Your task to perform on an android device: delete location history Image 0: 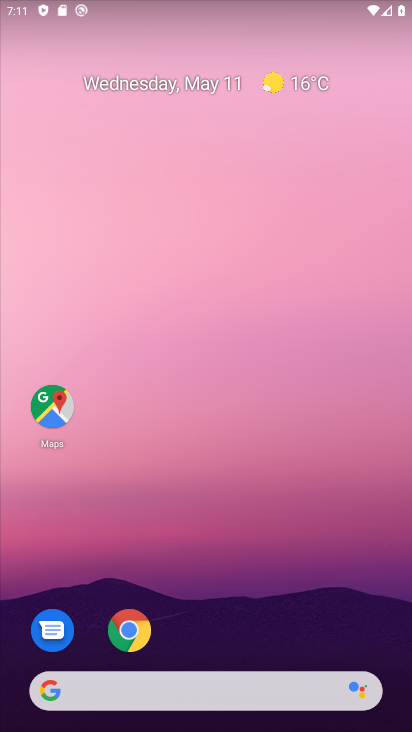
Step 0: drag from (296, 601) to (313, 23)
Your task to perform on an android device: delete location history Image 1: 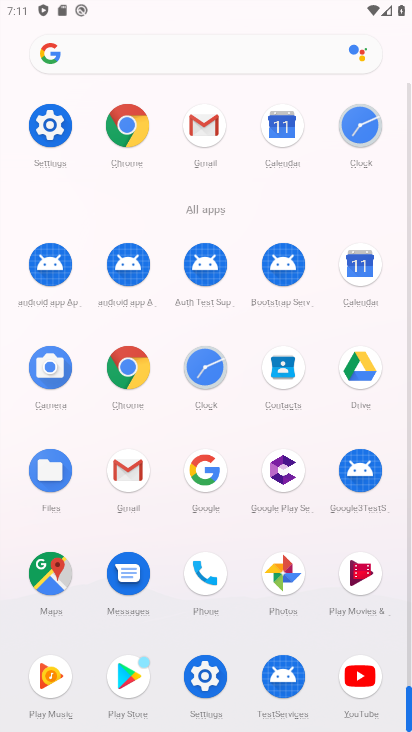
Step 1: click (63, 138)
Your task to perform on an android device: delete location history Image 2: 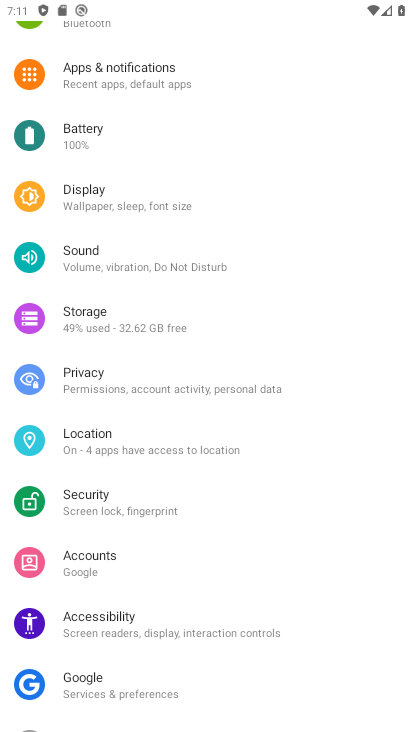
Step 2: press back button
Your task to perform on an android device: delete location history Image 3: 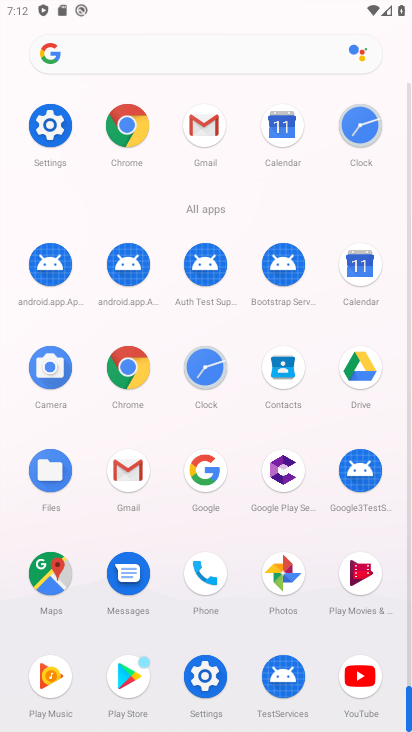
Step 3: click (47, 575)
Your task to perform on an android device: delete location history Image 4: 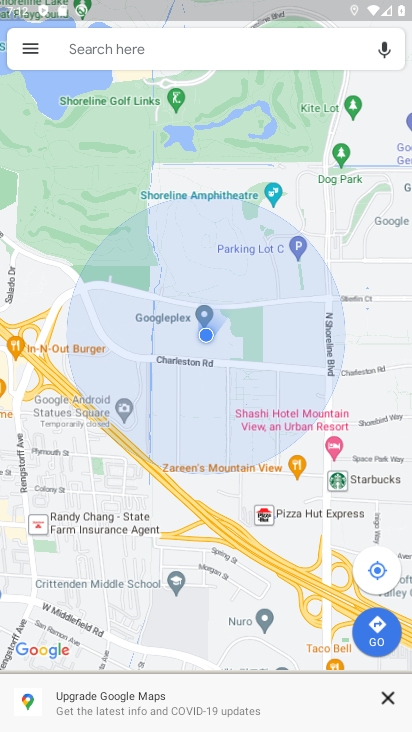
Step 4: click (18, 48)
Your task to perform on an android device: delete location history Image 5: 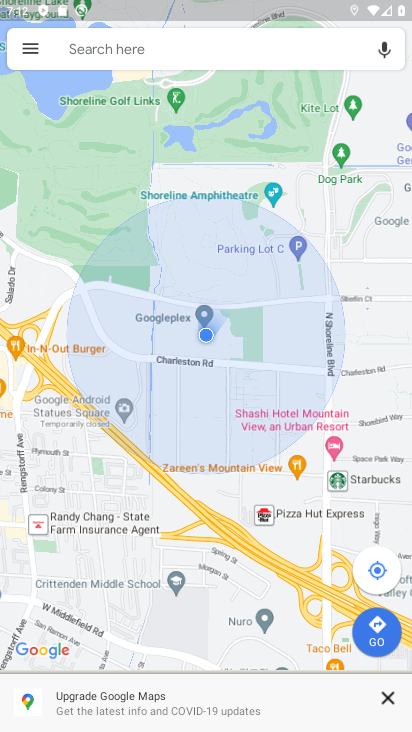
Step 5: click (18, 48)
Your task to perform on an android device: delete location history Image 6: 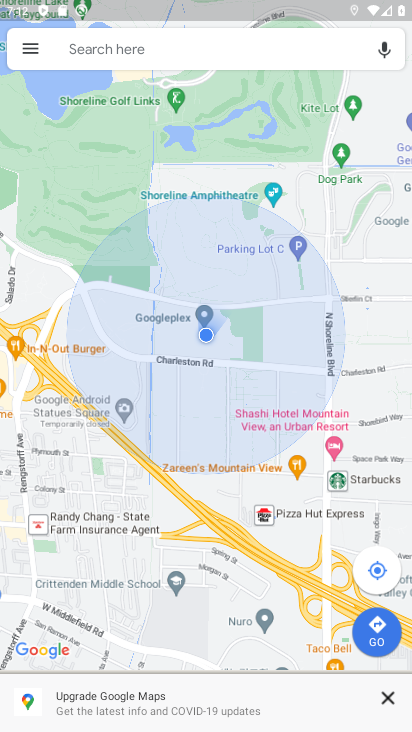
Step 6: click (18, 49)
Your task to perform on an android device: delete location history Image 7: 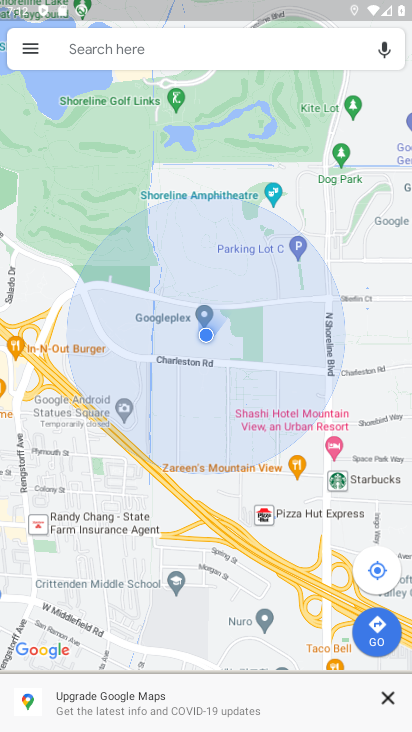
Step 7: click (22, 54)
Your task to perform on an android device: delete location history Image 8: 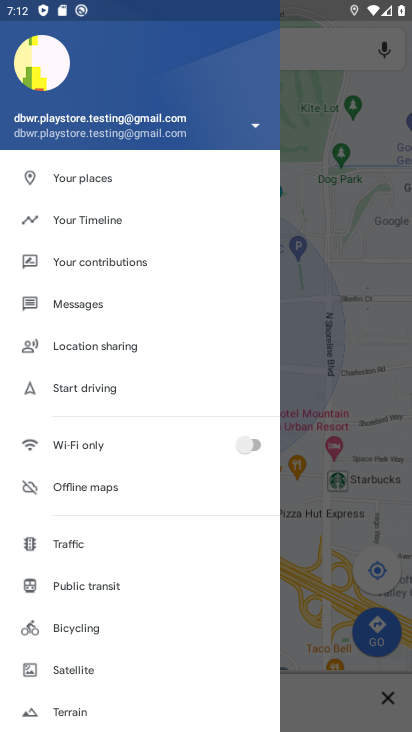
Step 8: click (67, 221)
Your task to perform on an android device: delete location history Image 9: 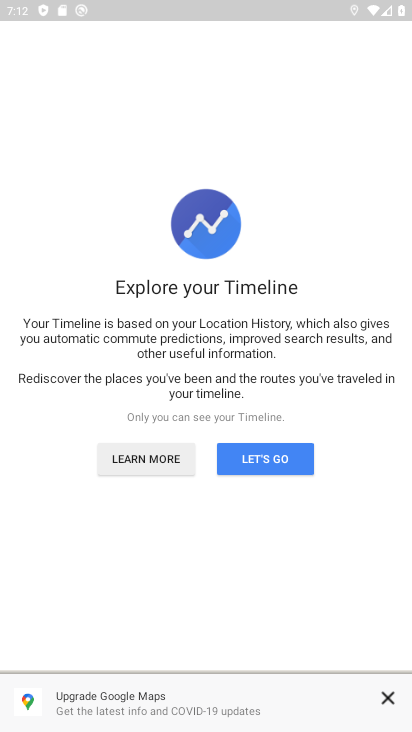
Step 9: click (261, 468)
Your task to perform on an android device: delete location history Image 10: 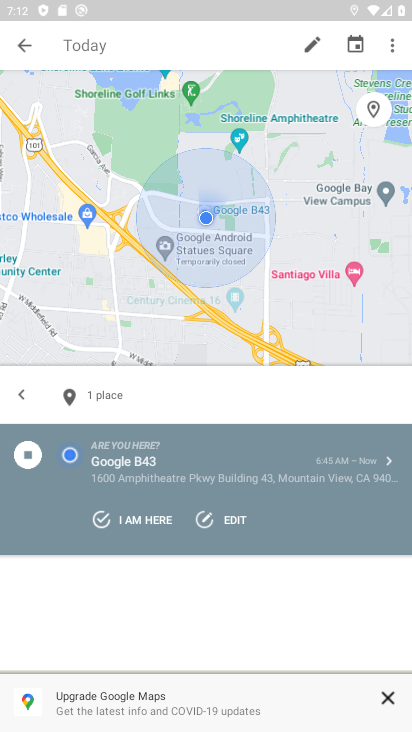
Step 10: click (393, 45)
Your task to perform on an android device: delete location history Image 11: 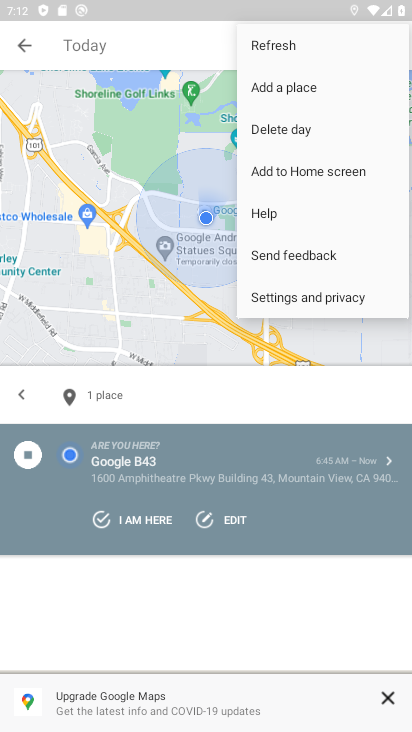
Step 11: click (284, 294)
Your task to perform on an android device: delete location history Image 12: 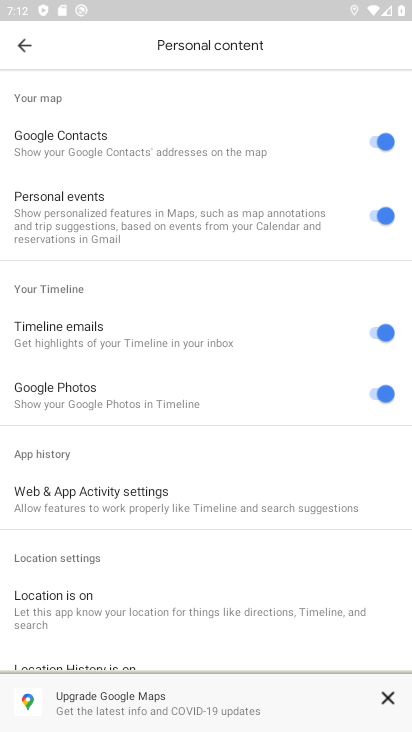
Step 12: drag from (162, 577) to (237, 110)
Your task to perform on an android device: delete location history Image 13: 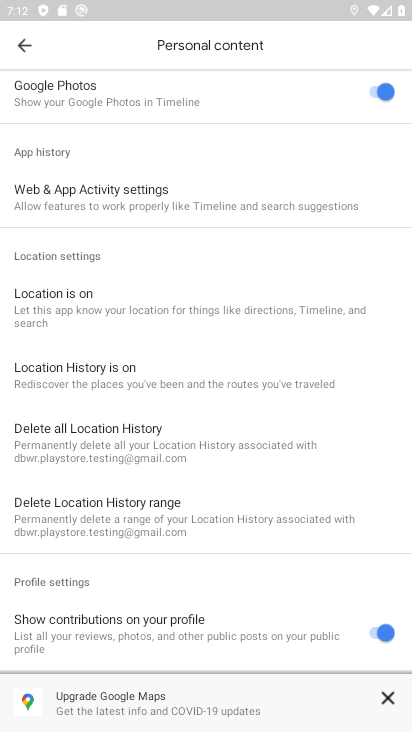
Step 13: click (78, 443)
Your task to perform on an android device: delete location history Image 14: 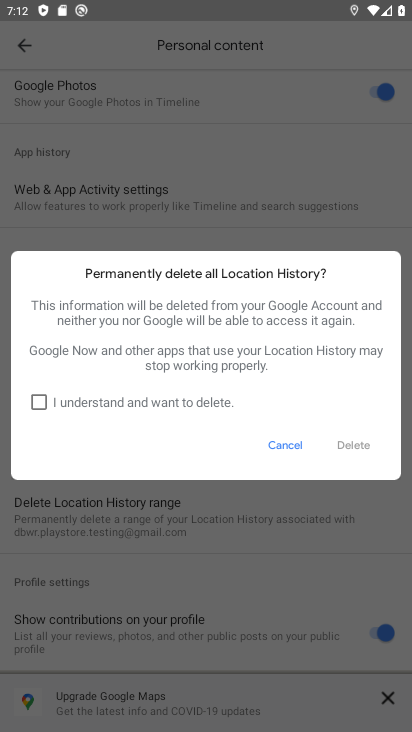
Step 14: click (40, 407)
Your task to perform on an android device: delete location history Image 15: 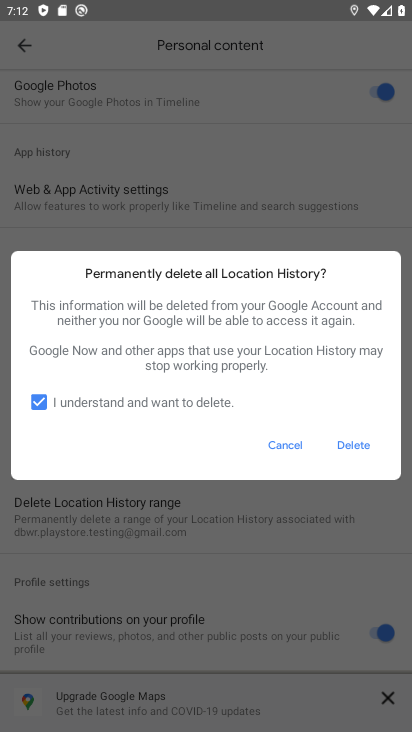
Step 15: click (364, 444)
Your task to perform on an android device: delete location history Image 16: 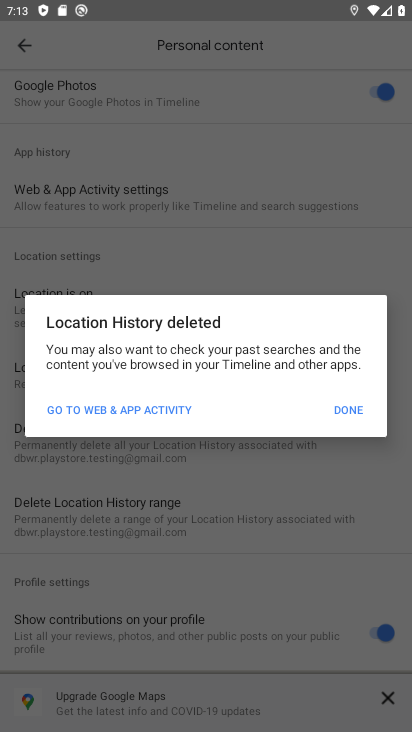
Step 16: click (352, 412)
Your task to perform on an android device: delete location history Image 17: 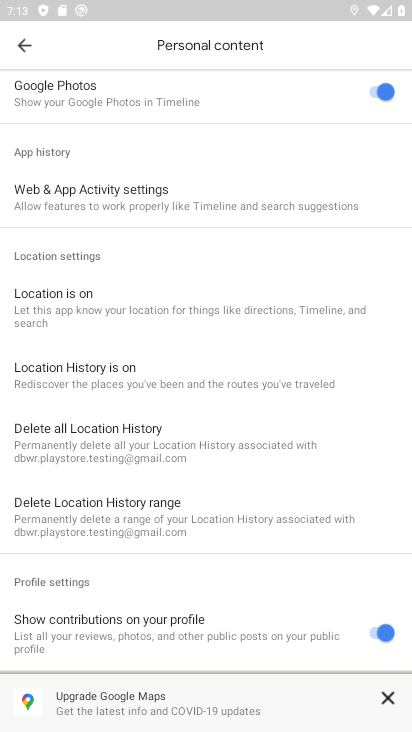
Step 17: task complete